Your task to perform on an android device: see sites visited before in the chrome app Image 0: 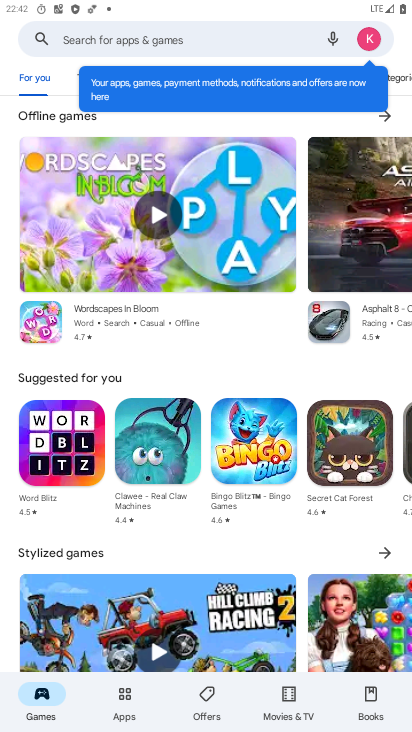
Step 0: press home button
Your task to perform on an android device: see sites visited before in the chrome app Image 1: 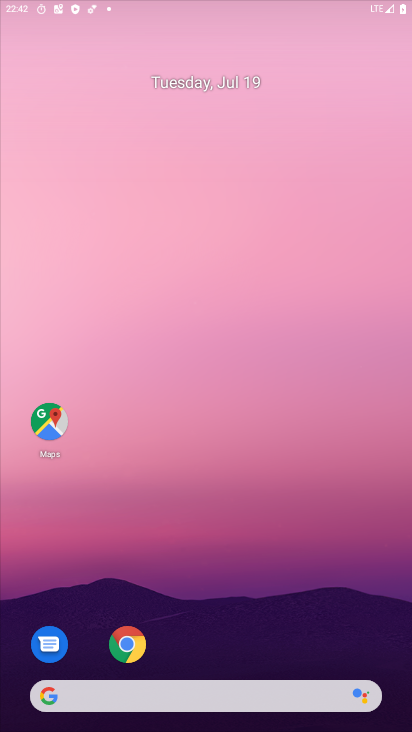
Step 1: drag from (342, 619) to (321, 342)
Your task to perform on an android device: see sites visited before in the chrome app Image 2: 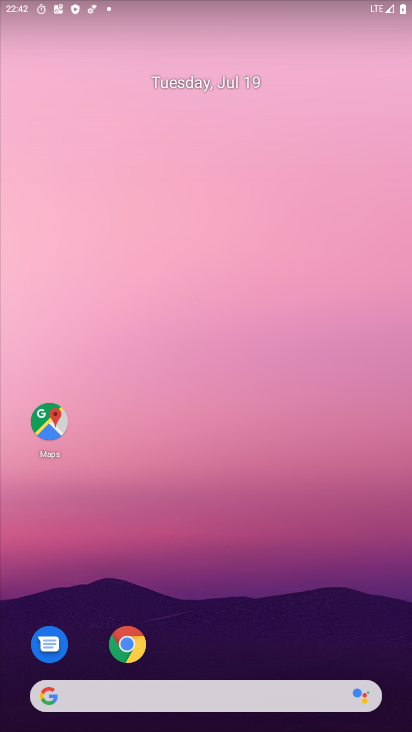
Step 2: click (134, 658)
Your task to perform on an android device: see sites visited before in the chrome app Image 3: 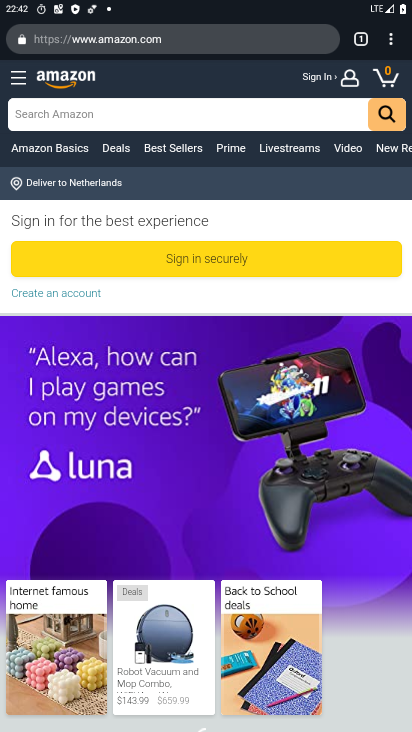
Step 3: task complete